Your task to perform on an android device: open app "Instagram" (install if not already installed) Image 0: 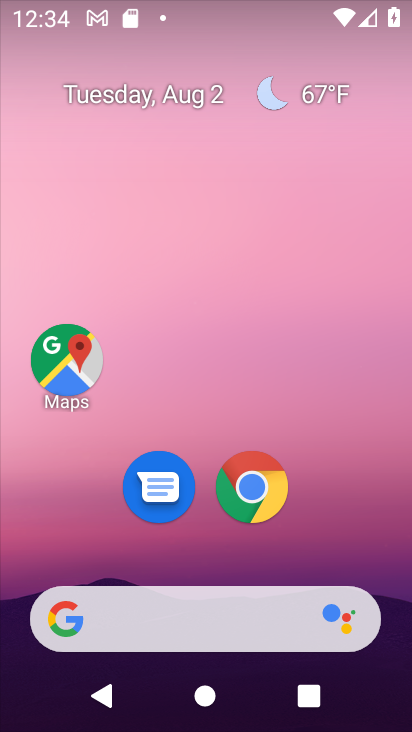
Step 0: drag from (198, 595) to (266, 79)
Your task to perform on an android device: open app "Instagram" (install if not already installed) Image 1: 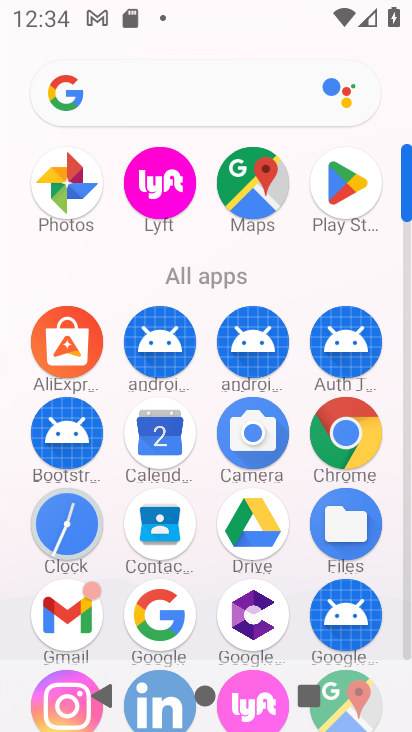
Step 1: click (326, 213)
Your task to perform on an android device: open app "Instagram" (install if not already installed) Image 2: 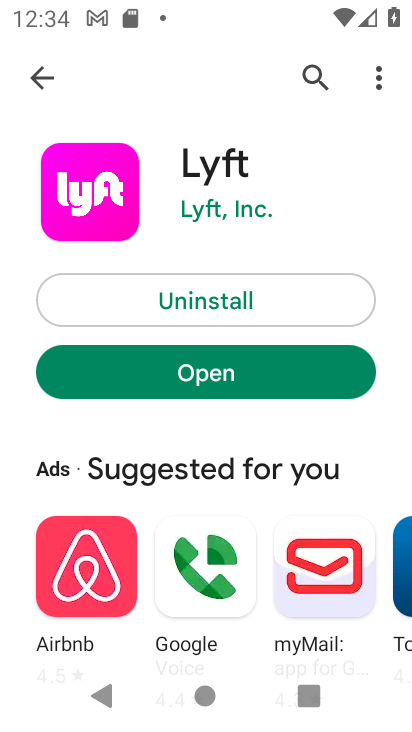
Step 2: click (43, 69)
Your task to perform on an android device: open app "Instagram" (install if not already installed) Image 3: 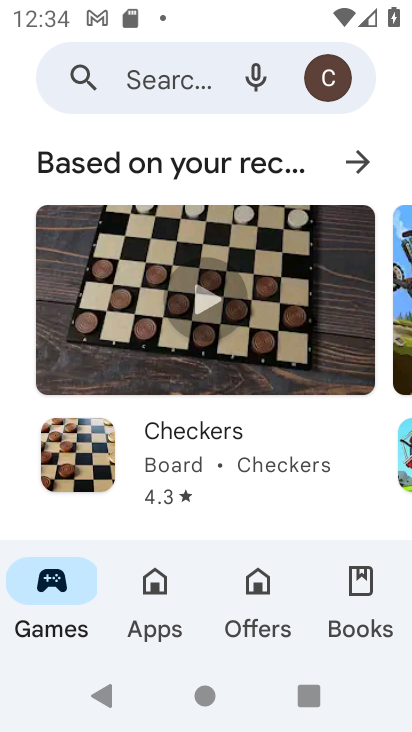
Step 3: click (99, 59)
Your task to perform on an android device: open app "Instagram" (install if not already installed) Image 4: 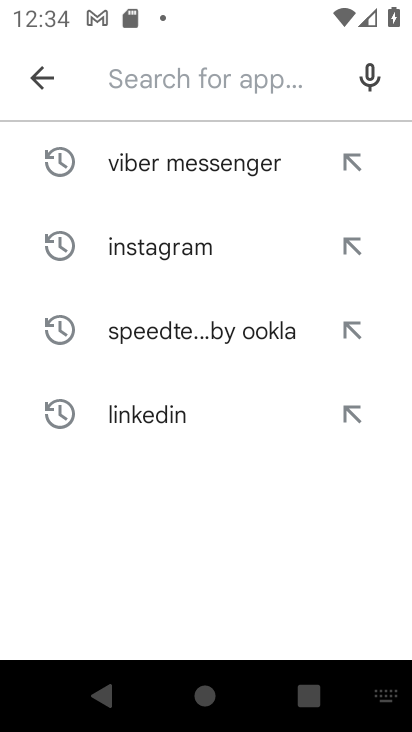
Step 4: type "Instagram"
Your task to perform on an android device: open app "Instagram" (install if not already installed) Image 5: 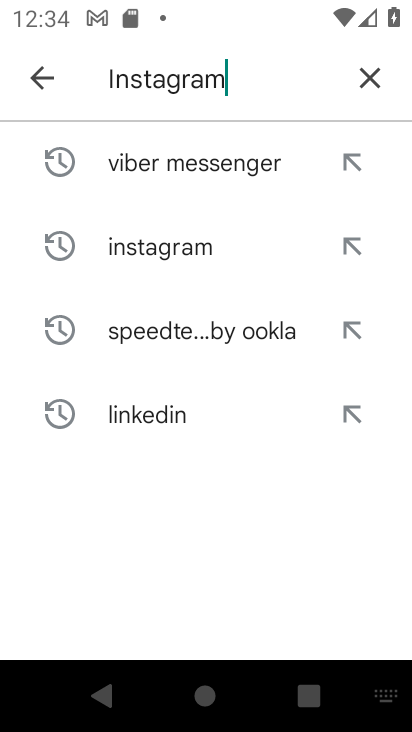
Step 5: type ""
Your task to perform on an android device: open app "Instagram" (install if not already installed) Image 6: 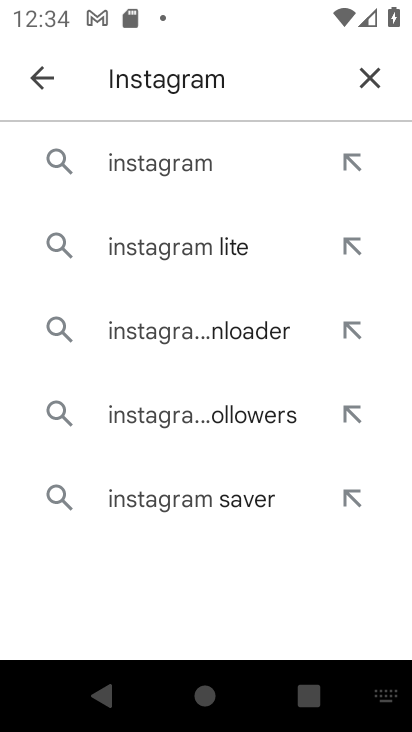
Step 6: click (143, 169)
Your task to perform on an android device: open app "Instagram" (install if not already installed) Image 7: 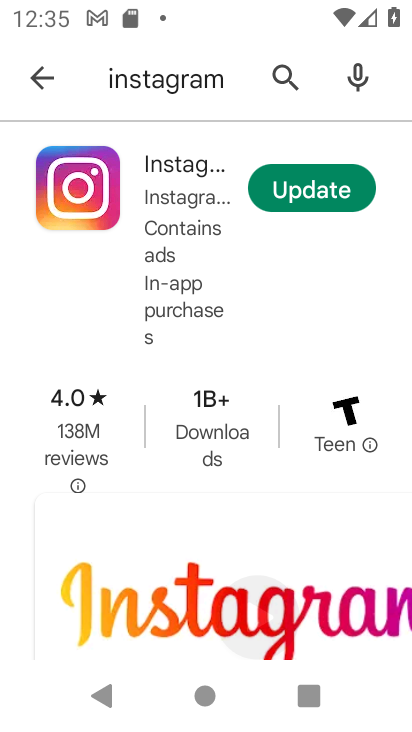
Step 7: click (310, 200)
Your task to perform on an android device: open app "Instagram" (install if not already installed) Image 8: 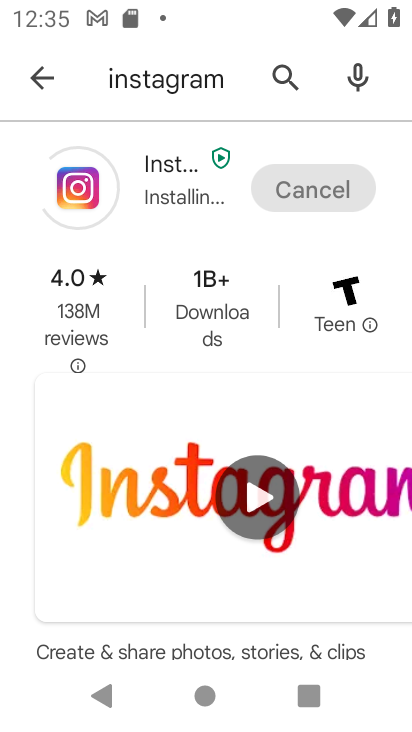
Step 8: drag from (188, 506) to (152, 385)
Your task to perform on an android device: open app "Instagram" (install if not already installed) Image 9: 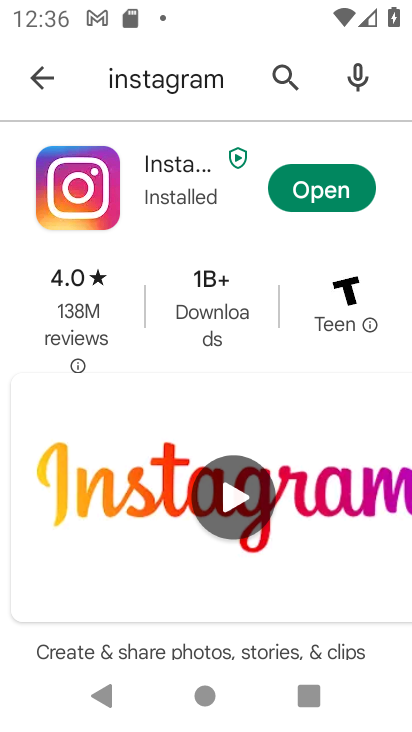
Step 9: click (317, 192)
Your task to perform on an android device: open app "Instagram" (install if not already installed) Image 10: 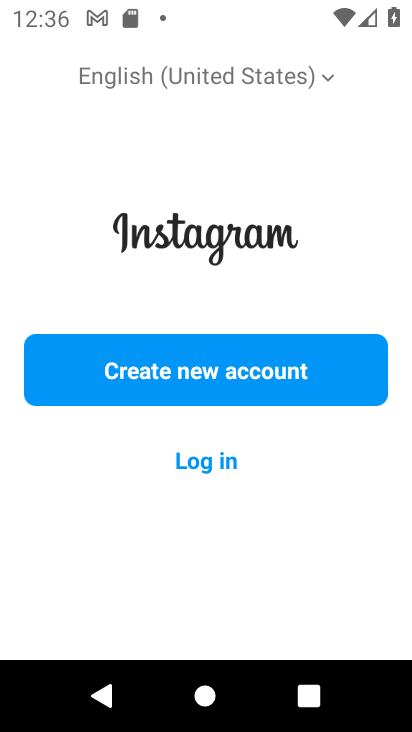
Step 10: task complete